Your task to perform on an android device: Go to Maps Image 0: 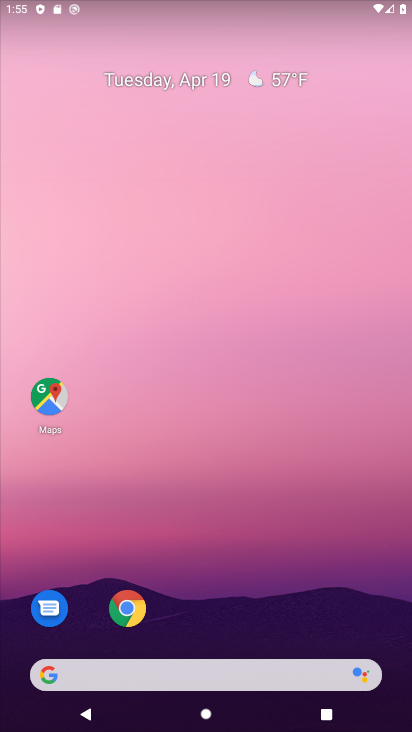
Step 0: click (50, 402)
Your task to perform on an android device: Go to Maps Image 1: 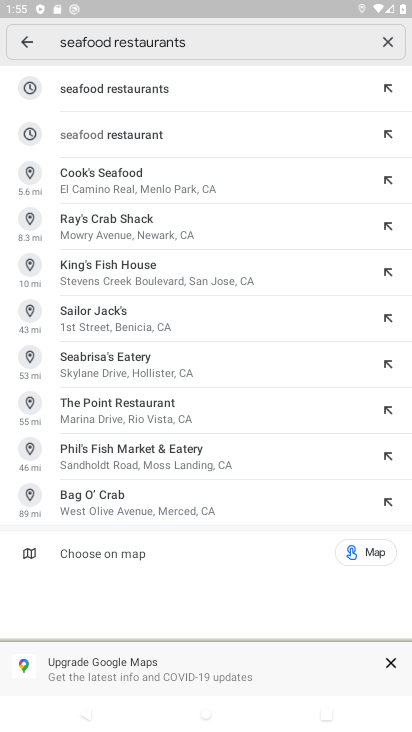
Step 1: task complete